Your task to perform on an android device: remove spam from my inbox in the gmail app Image 0: 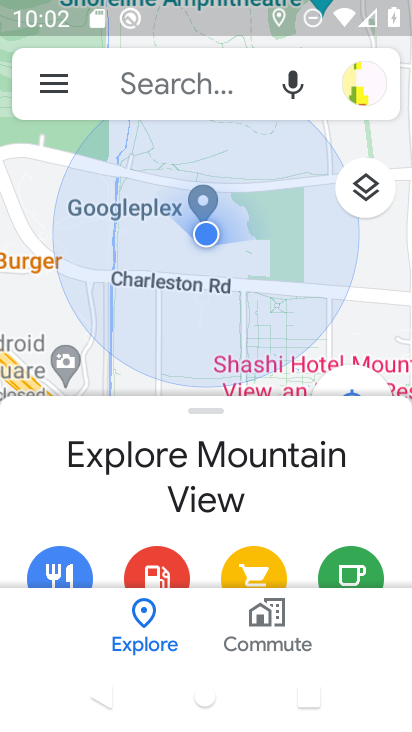
Step 0: press home button
Your task to perform on an android device: remove spam from my inbox in the gmail app Image 1: 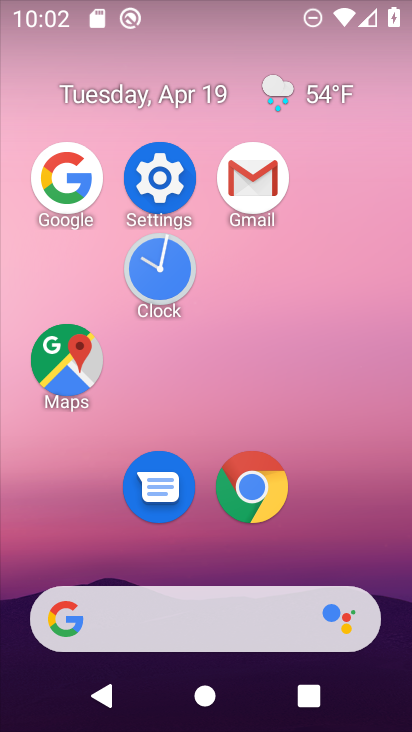
Step 1: click (250, 191)
Your task to perform on an android device: remove spam from my inbox in the gmail app Image 2: 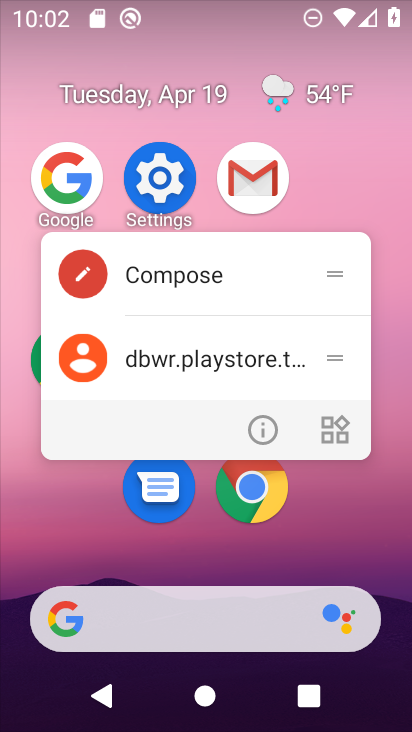
Step 2: click (242, 176)
Your task to perform on an android device: remove spam from my inbox in the gmail app Image 3: 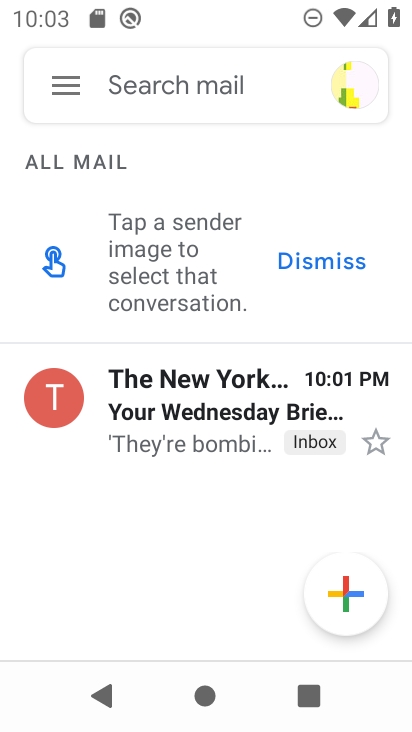
Step 3: click (57, 87)
Your task to perform on an android device: remove spam from my inbox in the gmail app Image 4: 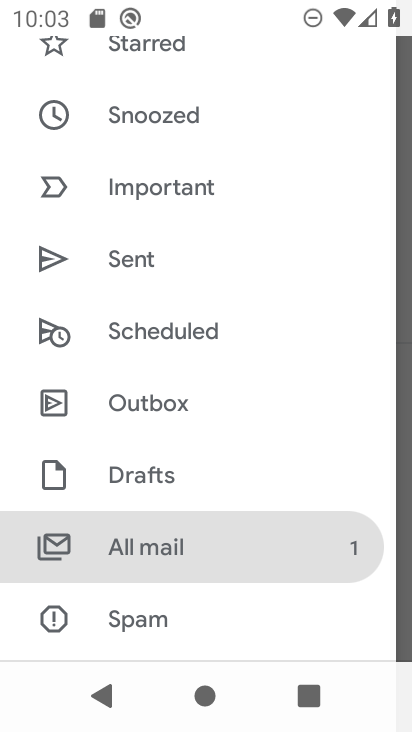
Step 4: click (180, 616)
Your task to perform on an android device: remove spam from my inbox in the gmail app Image 5: 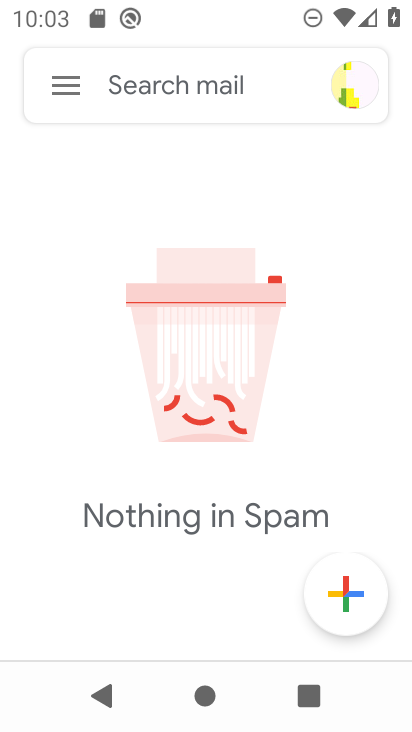
Step 5: task complete